Your task to perform on an android device: toggle notifications settings in the gmail app Image 0: 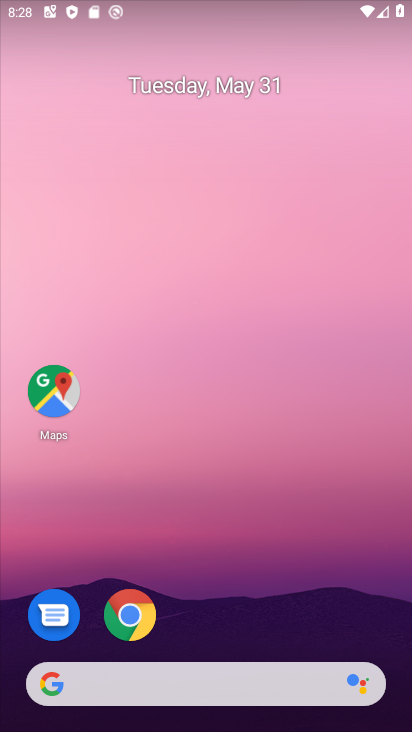
Step 0: drag from (354, 640) to (300, 19)
Your task to perform on an android device: toggle notifications settings in the gmail app Image 1: 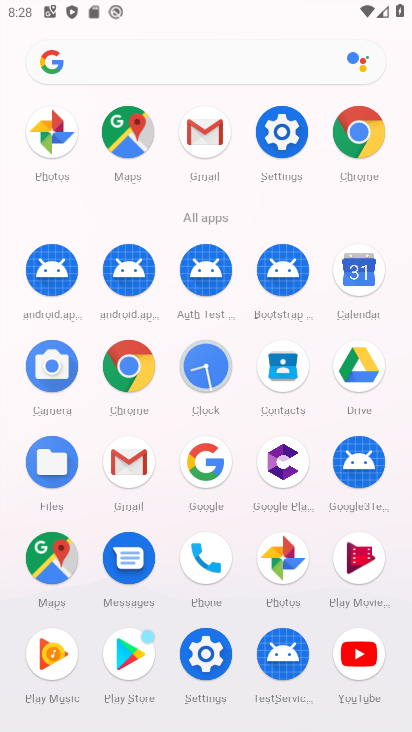
Step 1: click (130, 464)
Your task to perform on an android device: toggle notifications settings in the gmail app Image 2: 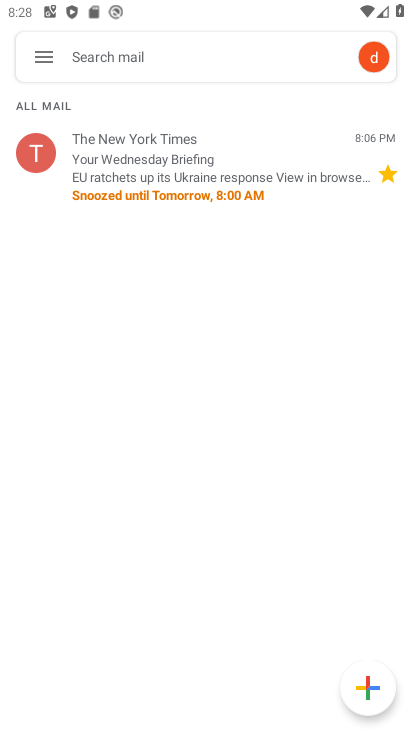
Step 2: click (47, 54)
Your task to perform on an android device: toggle notifications settings in the gmail app Image 3: 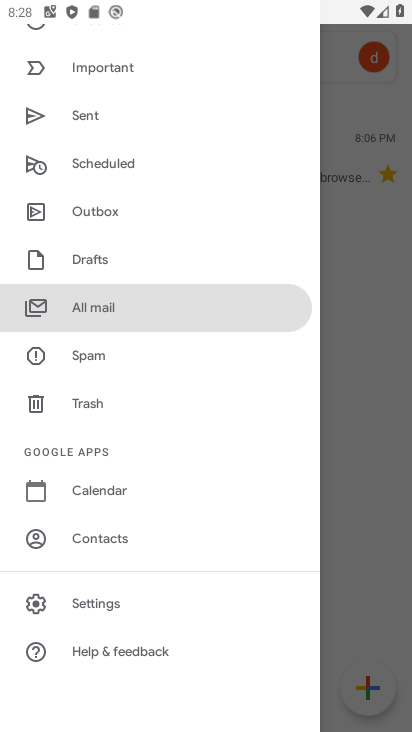
Step 3: click (107, 604)
Your task to perform on an android device: toggle notifications settings in the gmail app Image 4: 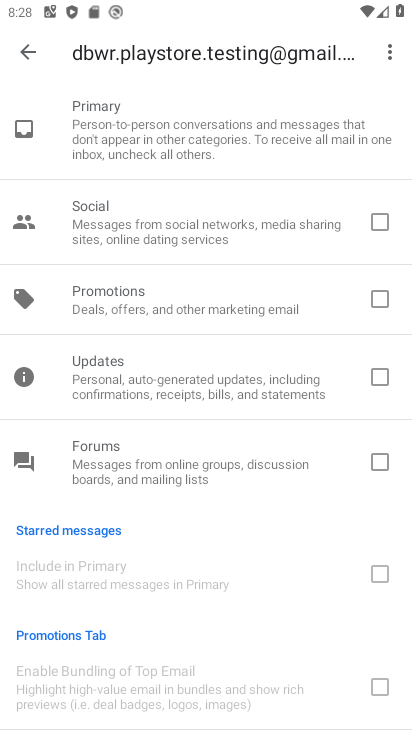
Step 4: press back button
Your task to perform on an android device: toggle notifications settings in the gmail app Image 5: 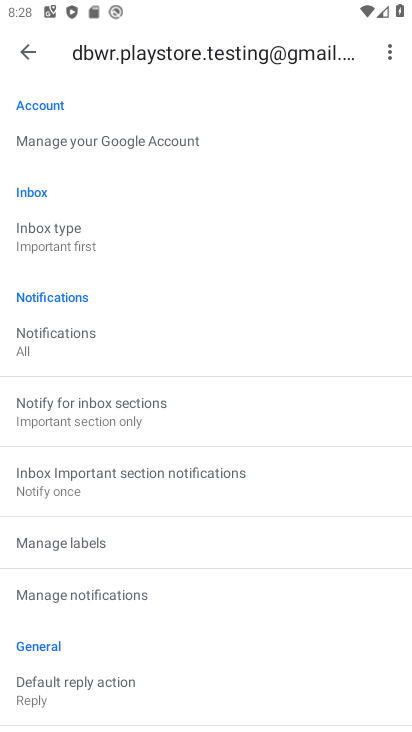
Step 5: click (70, 598)
Your task to perform on an android device: toggle notifications settings in the gmail app Image 6: 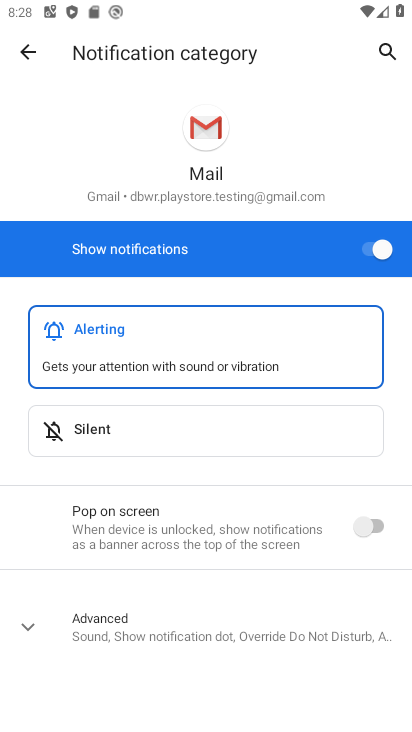
Step 6: click (372, 252)
Your task to perform on an android device: toggle notifications settings in the gmail app Image 7: 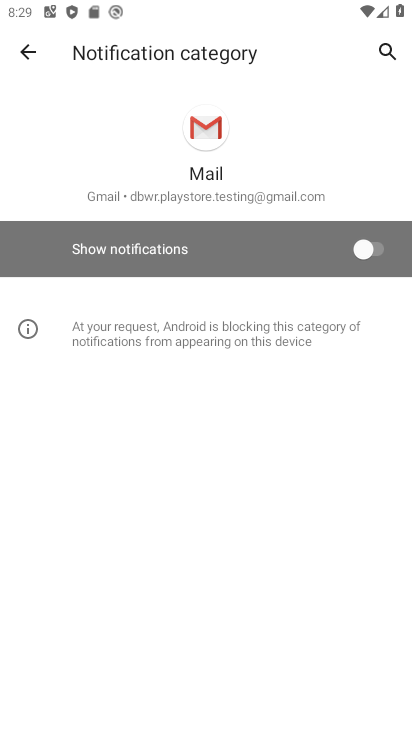
Step 7: task complete